Your task to perform on an android device: open sync settings in chrome Image 0: 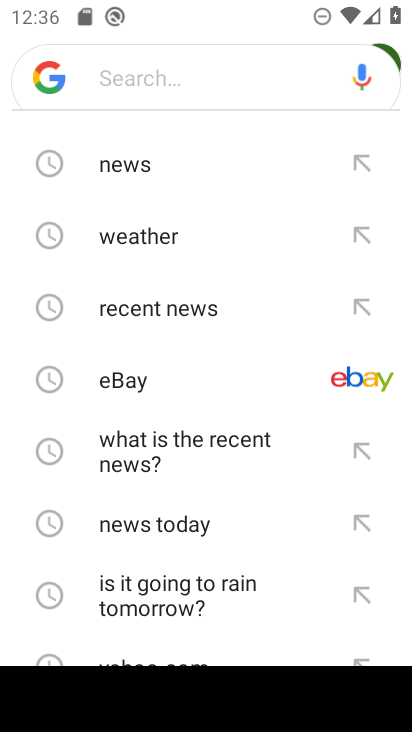
Step 0: press home button
Your task to perform on an android device: open sync settings in chrome Image 1: 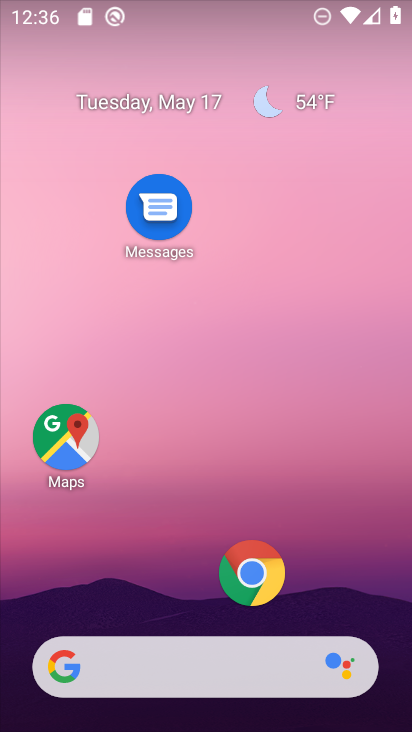
Step 1: click (251, 565)
Your task to perform on an android device: open sync settings in chrome Image 2: 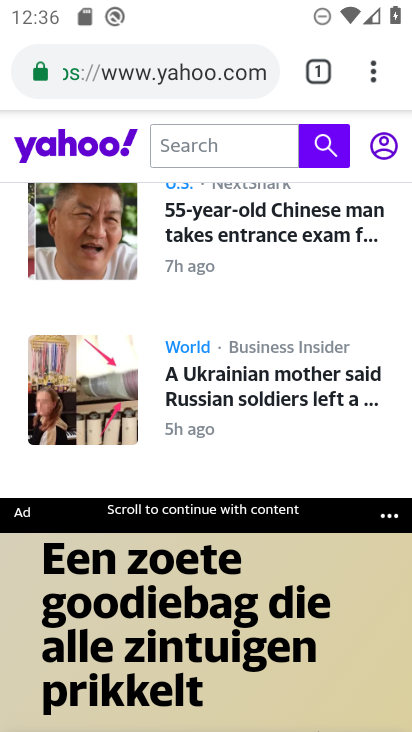
Step 2: click (372, 64)
Your task to perform on an android device: open sync settings in chrome Image 3: 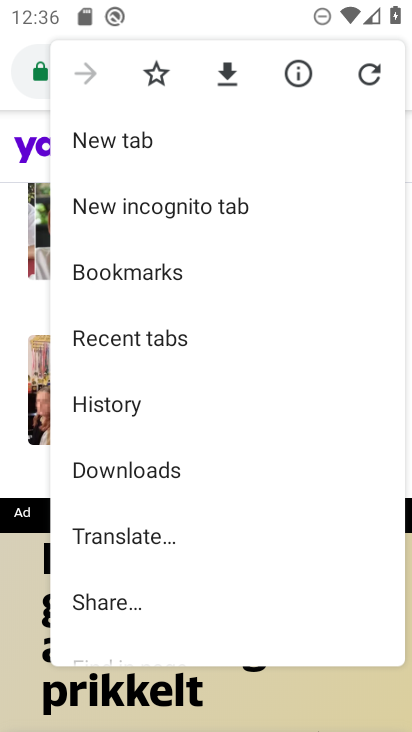
Step 3: drag from (159, 605) to (174, 132)
Your task to perform on an android device: open sync settings in chrome Image 4: 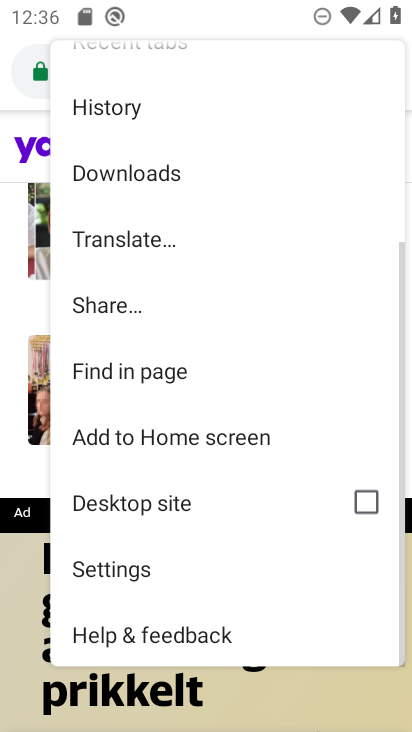
Step 4: click (159, 567)
Your task to perform on an android device: open sync settings in chrome Image 5: 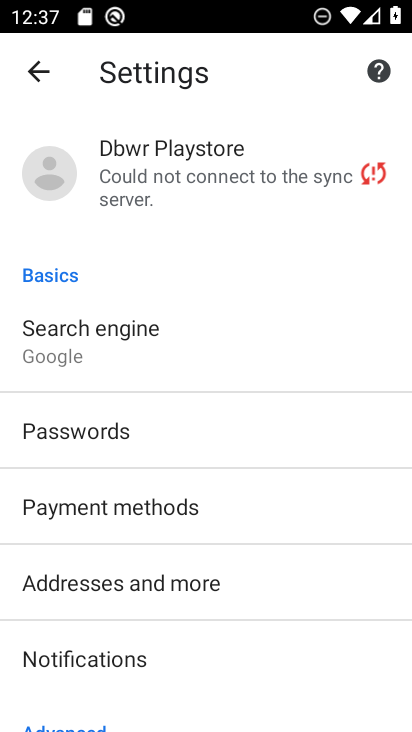
Step 5: click (146, 153)
Your task to perform on an android device: open sync settings in chrome Image 6: 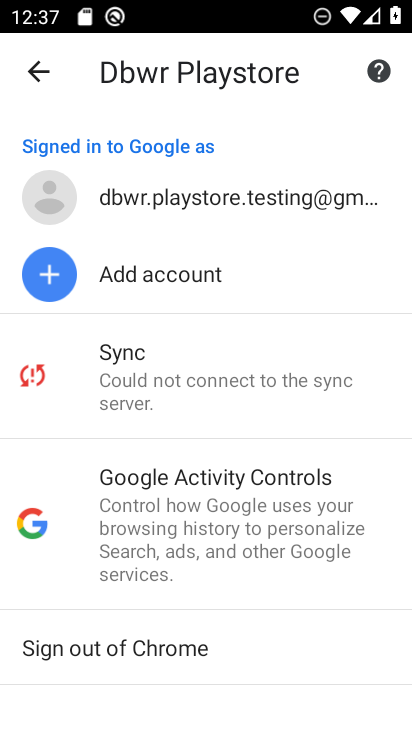
Step 6: click (192, 395)
Your task to perform on an android device: open sync settings in chrome Image 7: 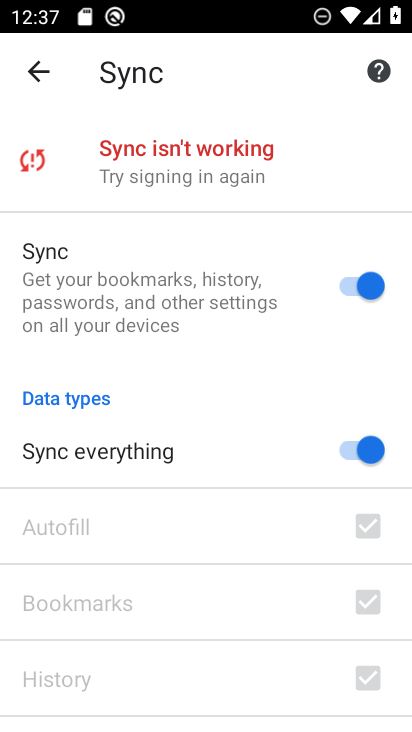
Step 7: task complete